Your task to perform on an android device: Search for pizza restaurants on Maps Image 0: 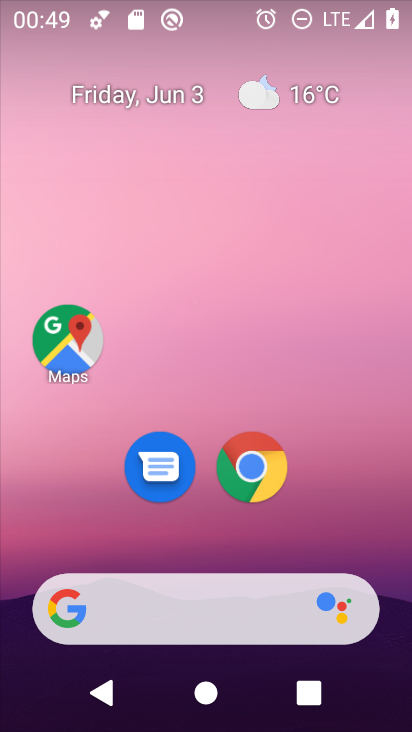
Step 0: click (67, 340)
Your task to perform on an android device: Search for pizza restaurants on Maps Image 1: 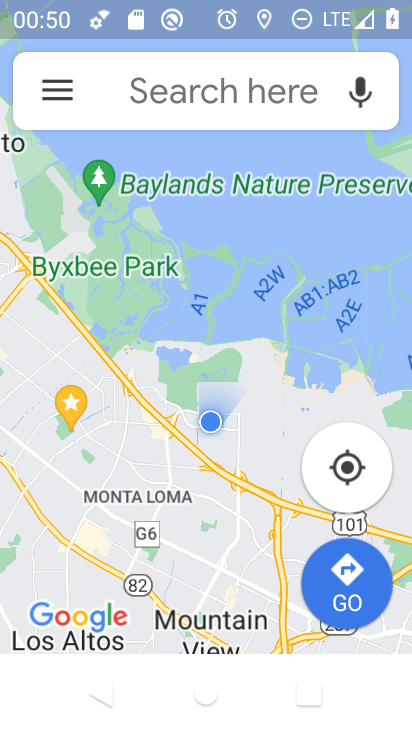
Step 1: click (162, 91)
Your task to perform on an android device: Search for pizza restaurants on Maps Image 2: 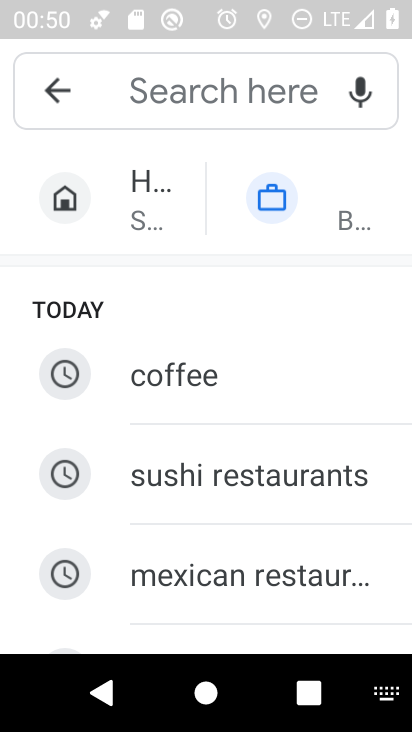
Step 2: type "pizza restaurants"
Your task to perform on an android device: Search for pizza restaurants on Maps Image 3: 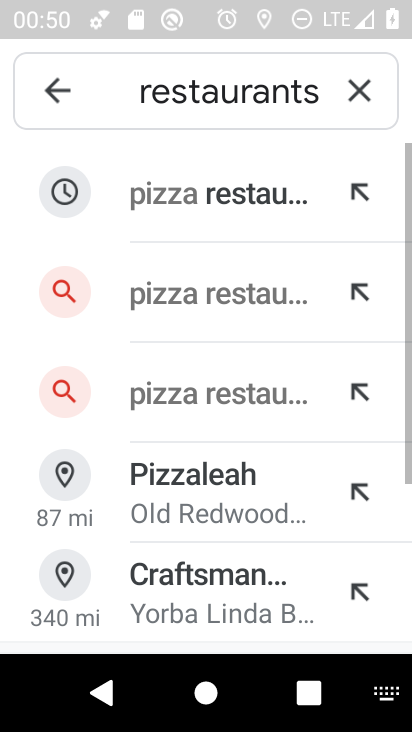
Step 3: click (164, 196)
Your task to perform on an android device: Search for pizza restaurants on Maps Image 4: 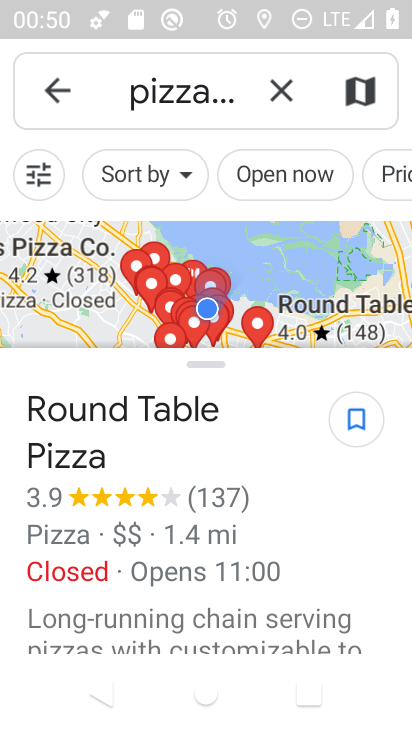
Step 4: task complete